Your task to perform on an android device: Open Amazon Image 0: 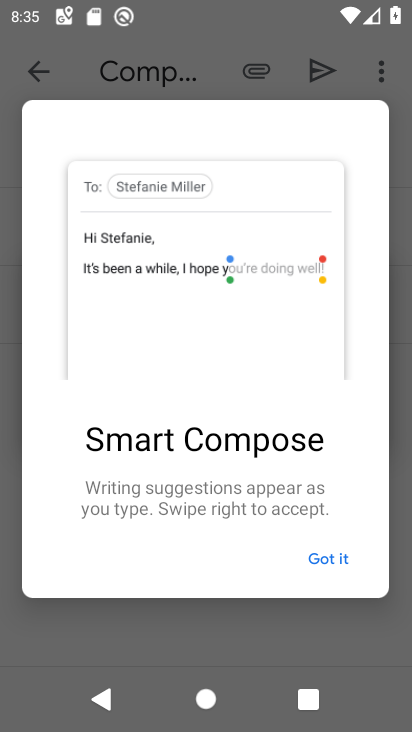
Step 0: press home button
Your task to perform on an android device: Open Amazon Image 1: 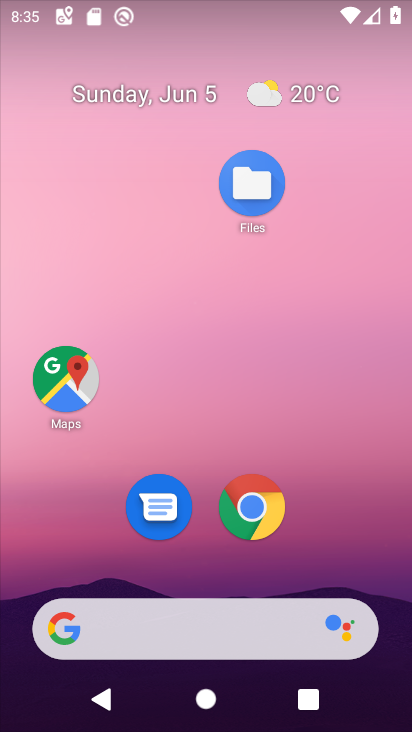
Step 1: click (250, 524)
Your task to perform on an android device: Open Amazon Image 2: 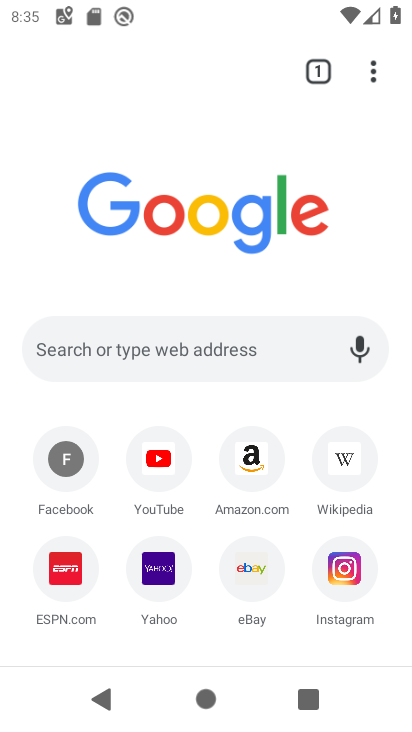
Step 2: click (231, 457)
Your task to perform on an android device: Open Amazon Image 3: 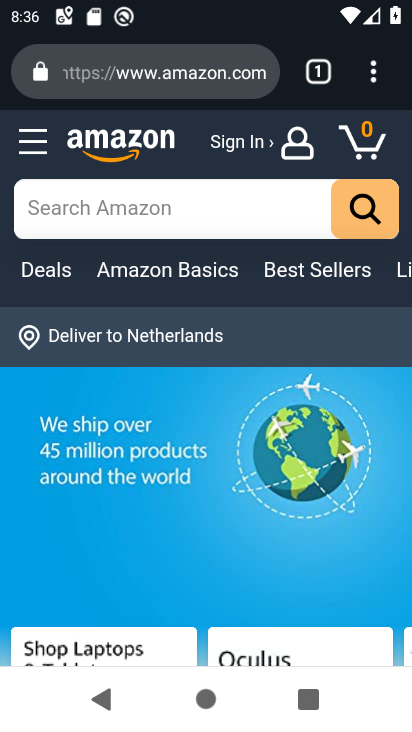
Step 3: task complete